Your task to perform on an android device: What's on my calendar today? Image 0: 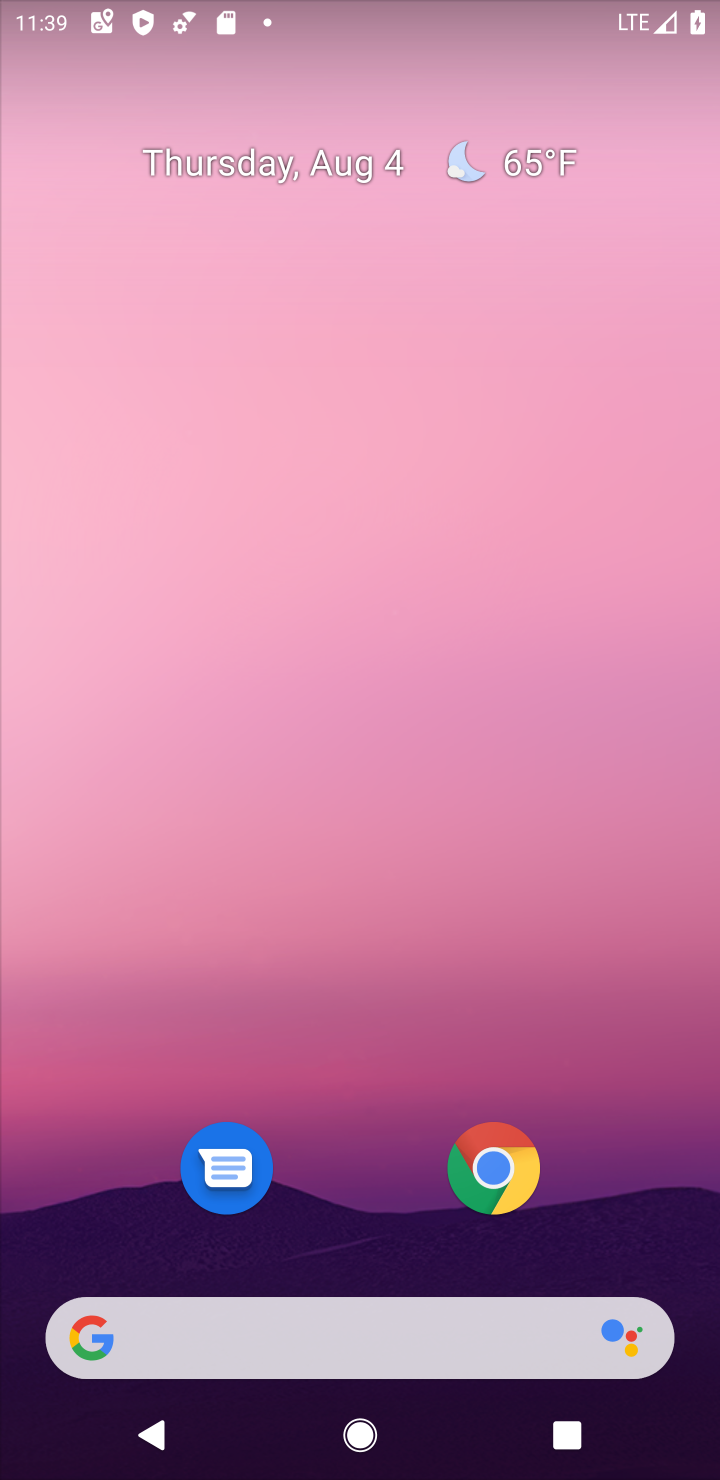
Step 0: drag from (630, 1223) to (411, 4)
Your task to perform on an android device: What's on my calendar today? Image 1: 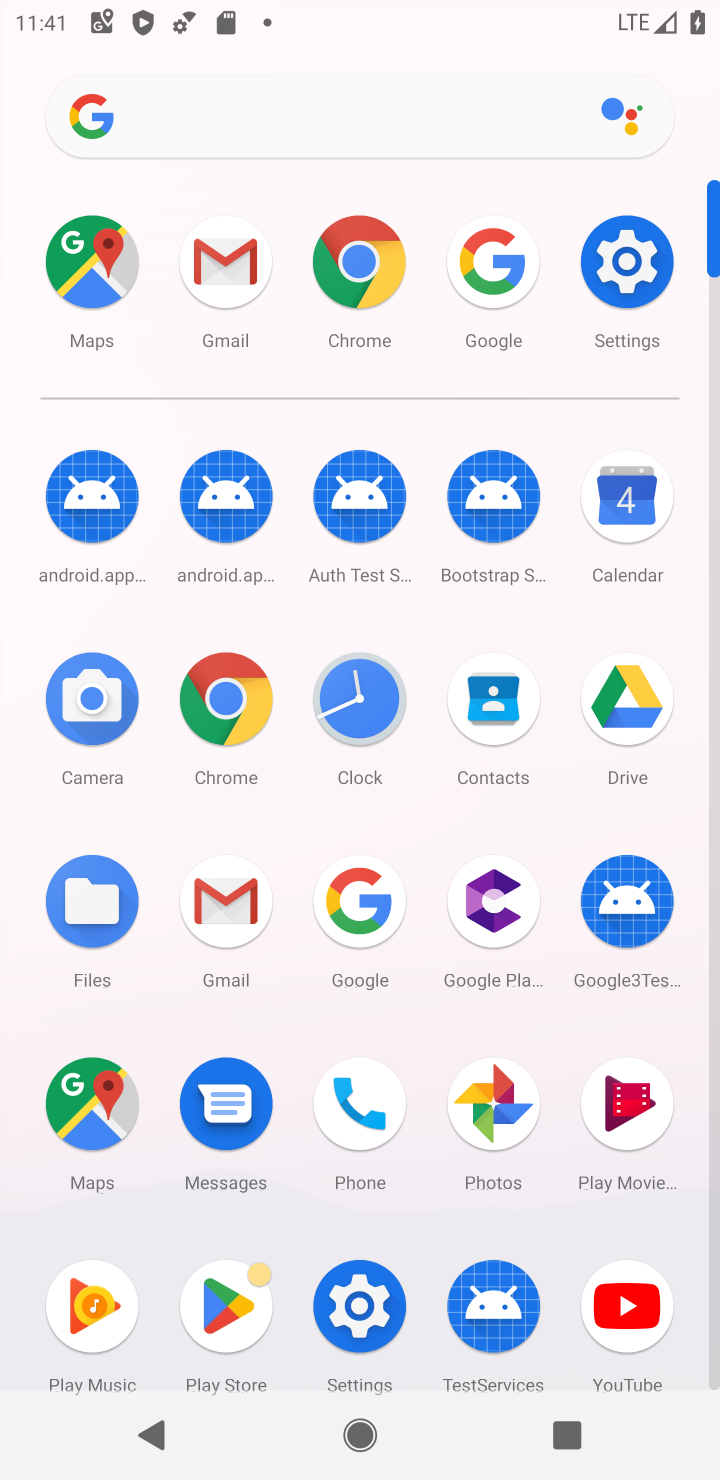
Step 1: click (638, 501)
Your task to perform on an android device: What's on my calendar today? Image 2: 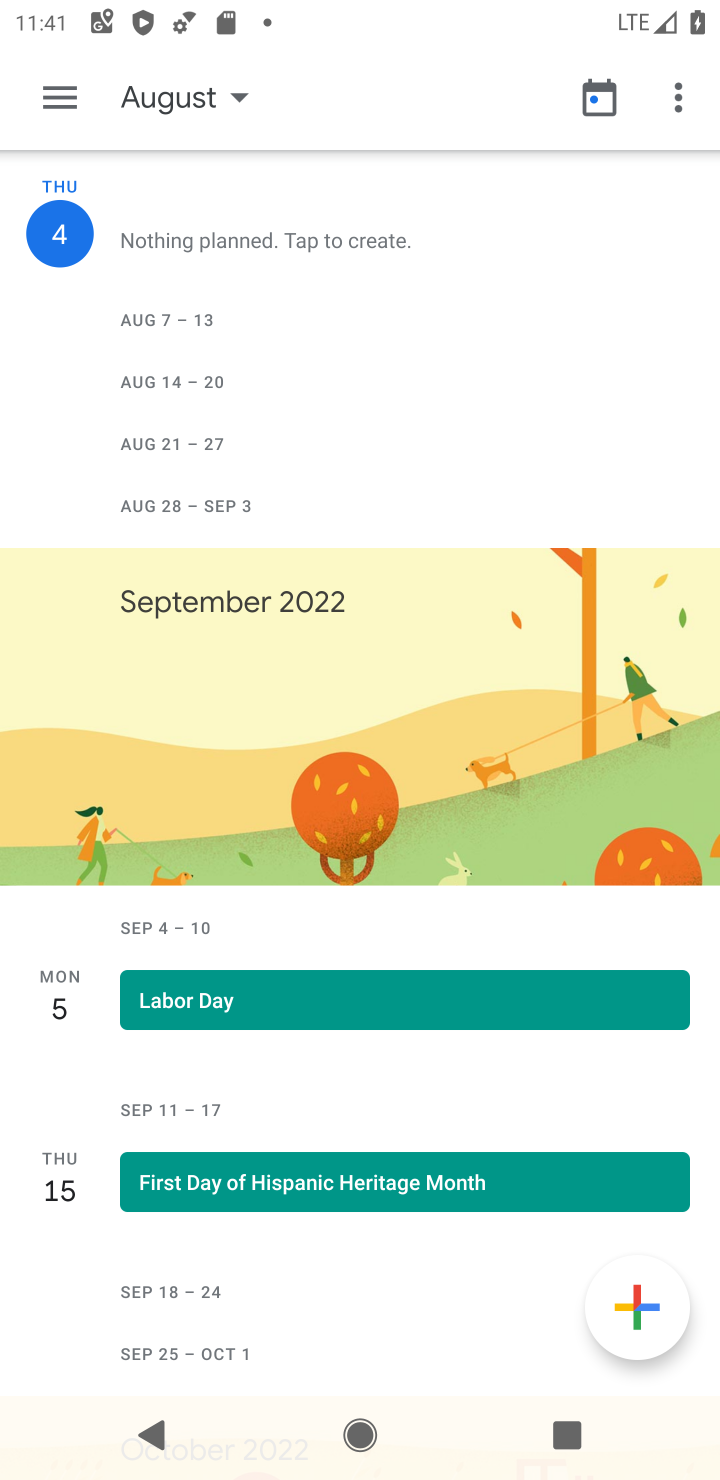
Step 2: task complete